Your task to perform on an android device: Open eBay Image 0: 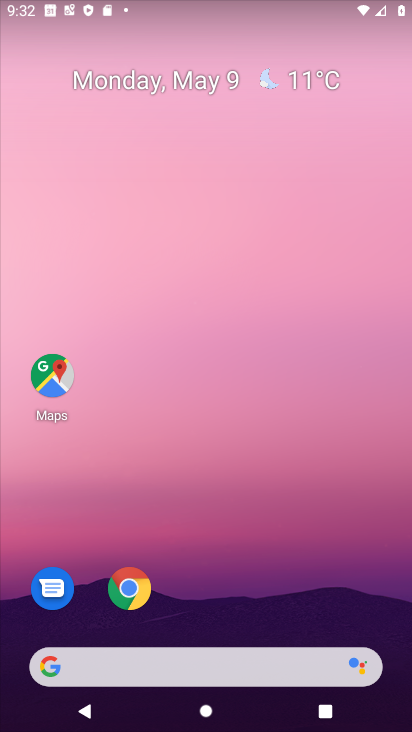
Step 0: drag from (216, 641) to (264, 1)
Your task to perform on an android device: Open eBay Image 1: 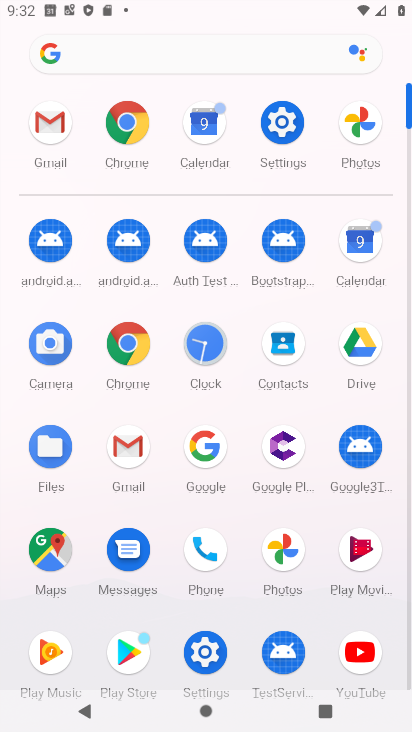
Step 1: click (127, 130)
Your task to perform on an android device: Open eBay Image 2: 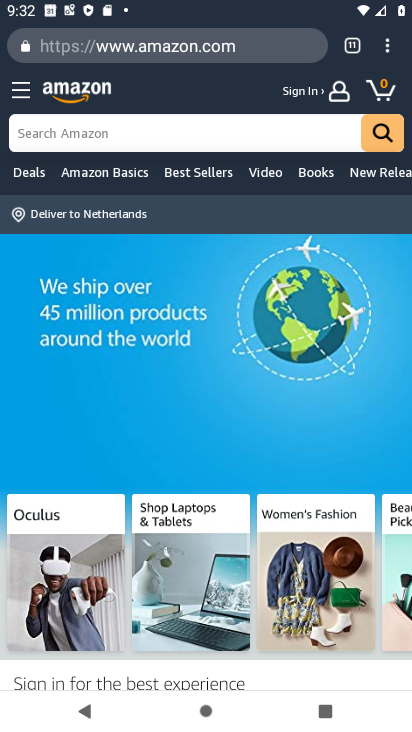
Step 2: drag from (386, 49) to (287, 85)
Your task to perform on an android device: Open eBay Image 3: 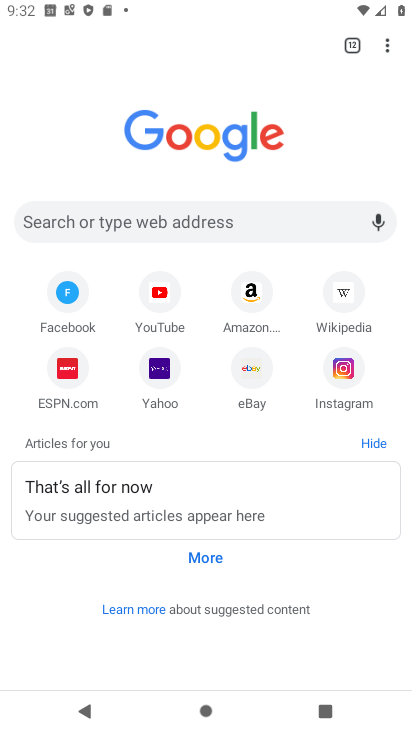
Step 3: click (254, 387)
Your task to perform on an android device: Open eBay Image 4: 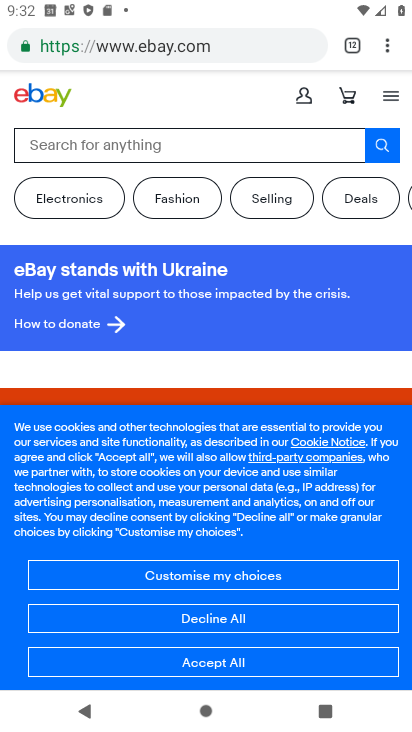
Step 4: task complete